Your task to perform on an android device: empty trash in the gmail app Image 0: 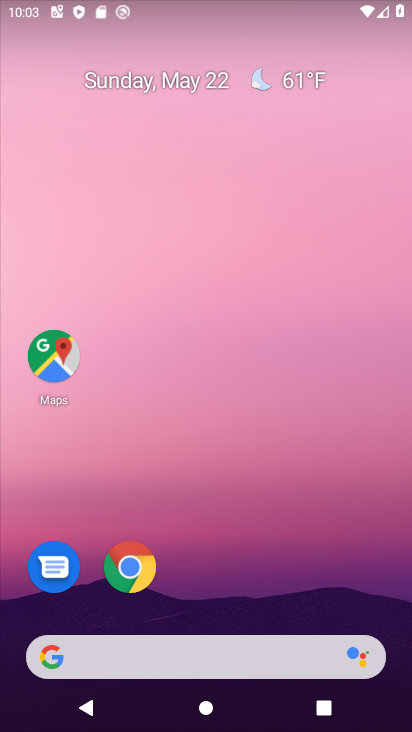
Step 0: drag from (221, 618) to (216, 39)
Your task to perform on an android device: empty trash in the gmail app Image 1: 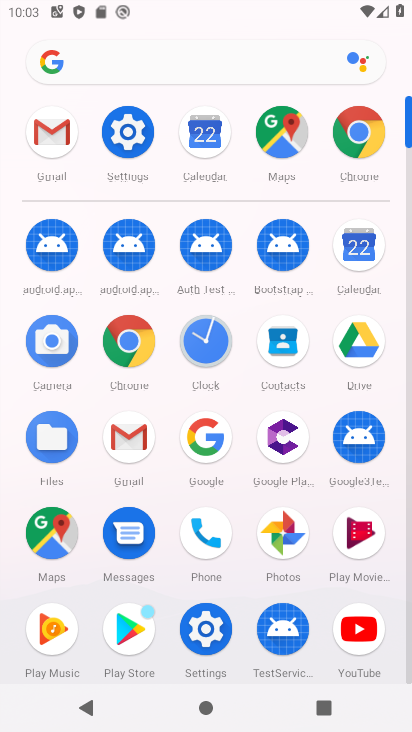
Step 1: click (120, 458)
Your task to perform on an android device: empty trash in the gmail app Image 2: 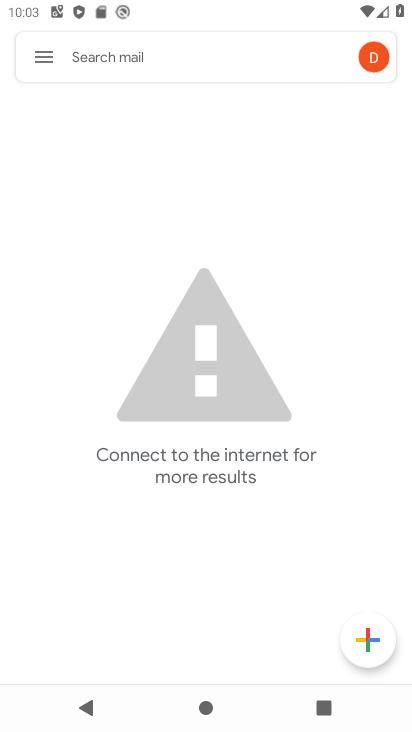
Step 2: click (48, 57)
Your task to perform on an android device: empty trash in the gmail app Image 3: 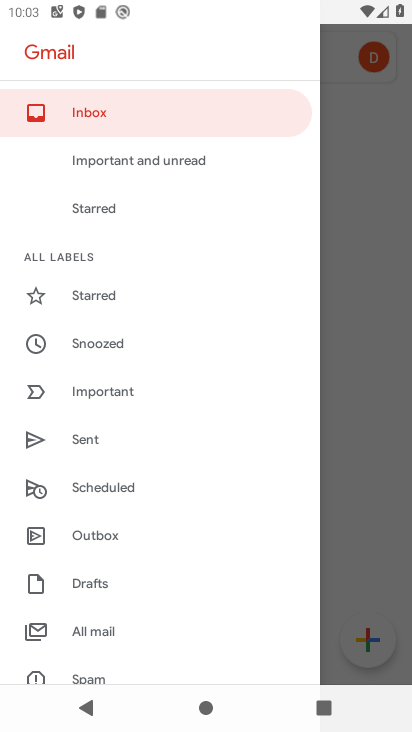
Step 3: drag from (111, 630) to (100, 317)
Your task to perform on an android device: empty trash in the gmail app Image 4: 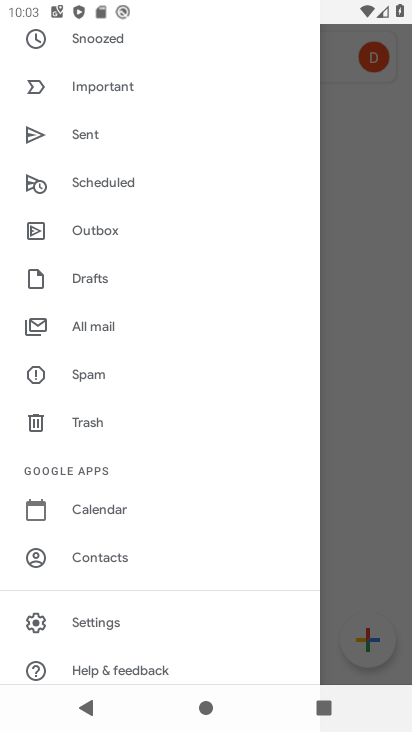
Step 4: click (79, 420)
Your task to perform on an android device: empty trash in the gmail app Image 5: 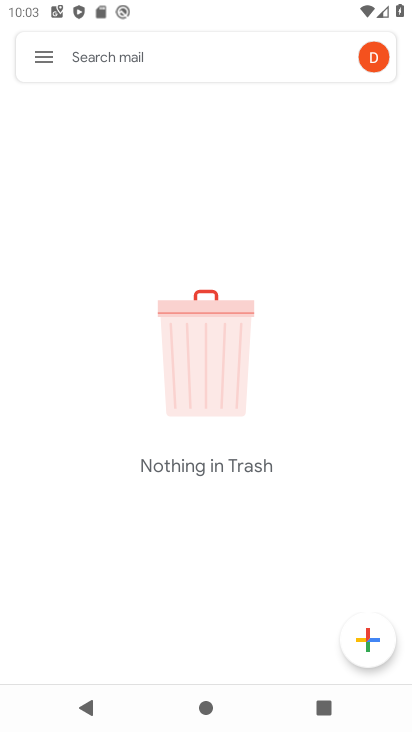
Step 5: task complete